Your task to perform on an android device: What is the recent news? Image 0: 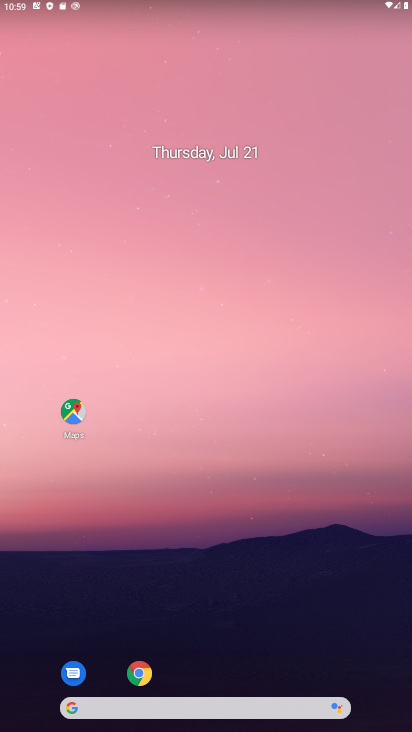
Step 0: drag from (237, 653) to (212, 181)
Your task to perform on an android device: What is the recent news? Image 1: 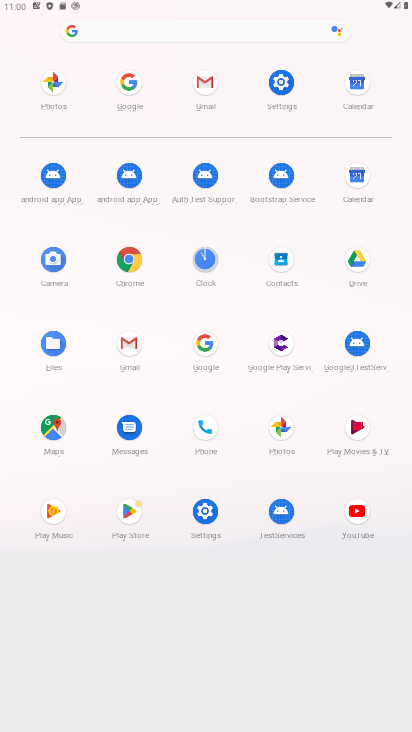
Step 1: click (192, 359)
Your task to perform on an android device: What is the recent news? Image 2: 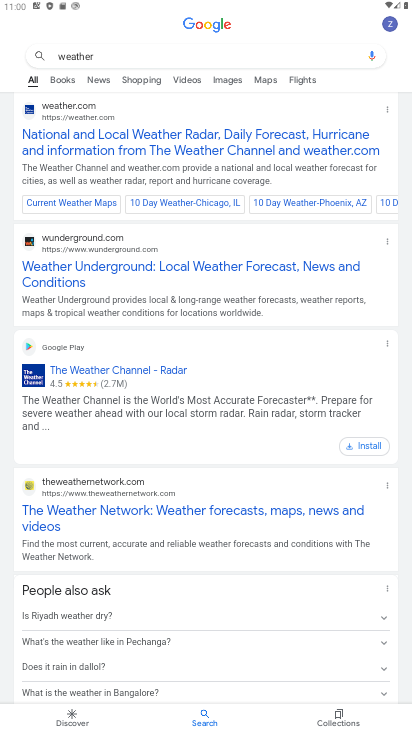
Step 2: click (164, 53)
Your task to perform on an android device: What is the recent news? Image 3: 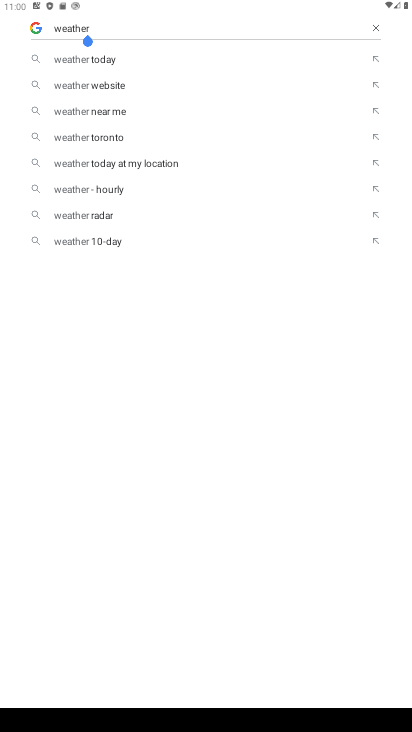
Step 3: click (376, 27)
Your task to perform on an android device: What is the recent news? Image 4: 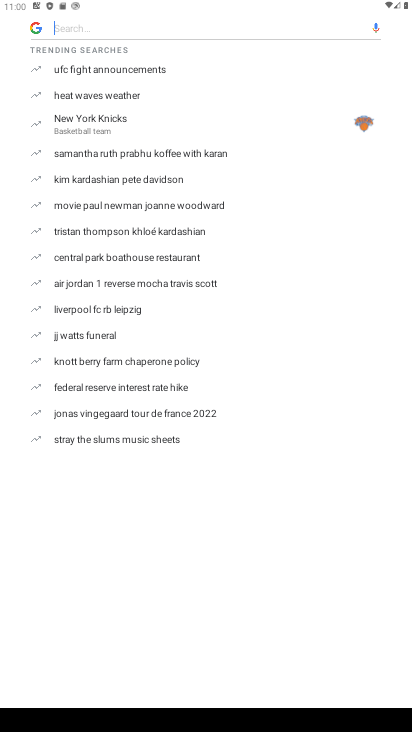
Step 4: type "ecent news"
Your task to perform on an android device: What is the recent news? Image 5: 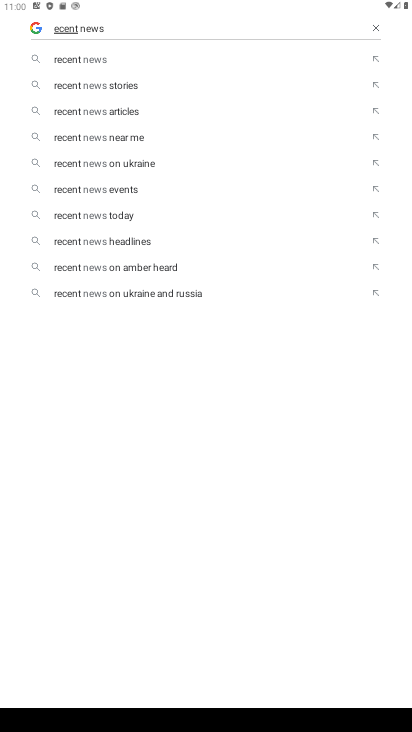
Step 5: click (121, 56)
Your task to perform on an android device: What is the recent news? Image 6: 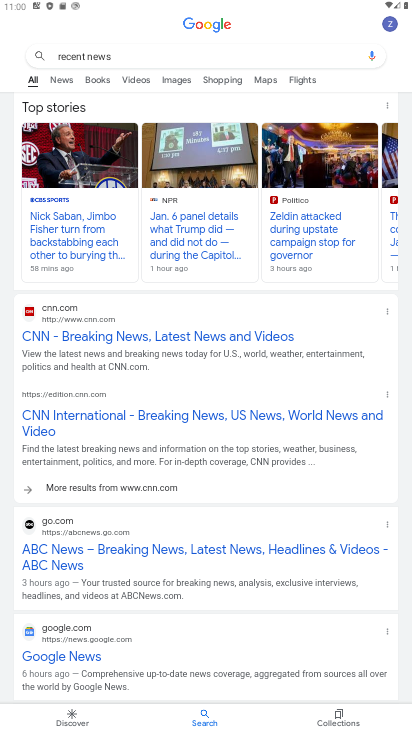
Step 6: click (59, 80)
Your task to perform on an android device: What is the recent news? Image 7: 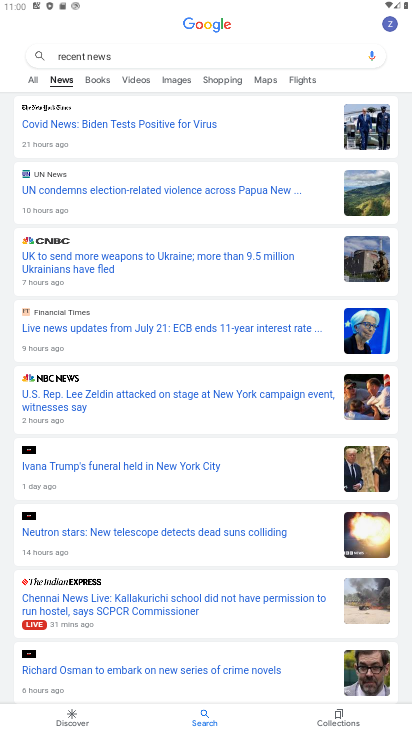
Step 7: task complete